Your task to perform on an android device: Open network settings Image 0: 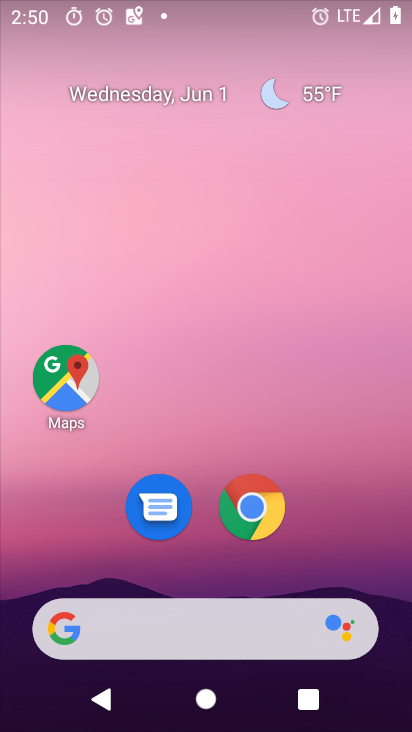
Step 0: drag from (341, 538) to (373, 28)
Your task to perform on an android device: Open network settings Image 1: 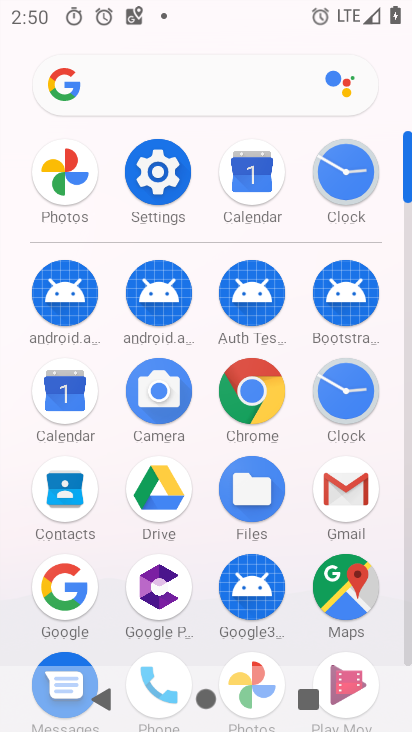
Step 1: click (156, 177)
Your task to perform on an android device: Open network settings Image 2: 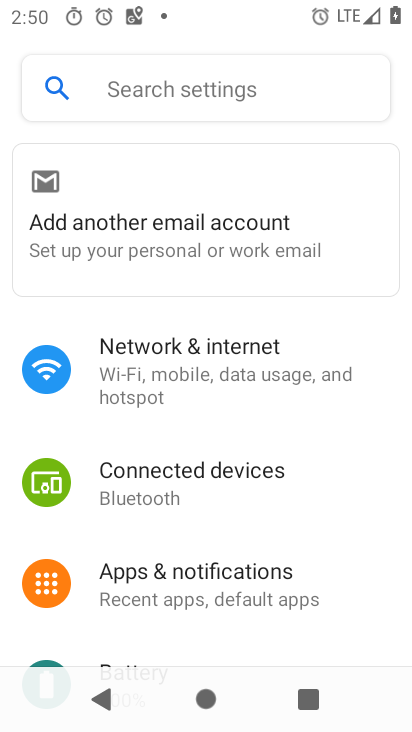
Step 2: click (159, 368)
Your task to perform on an android device: Open network settings Image 3: 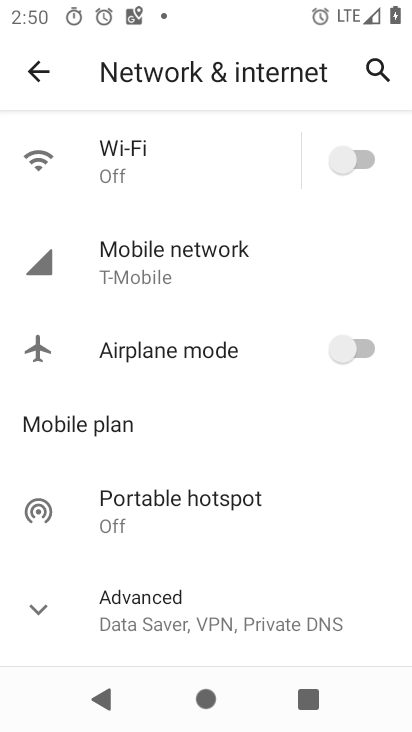
Step 3: click (129, 263)
Your task to perform on an android device: Open network settings Image 4: 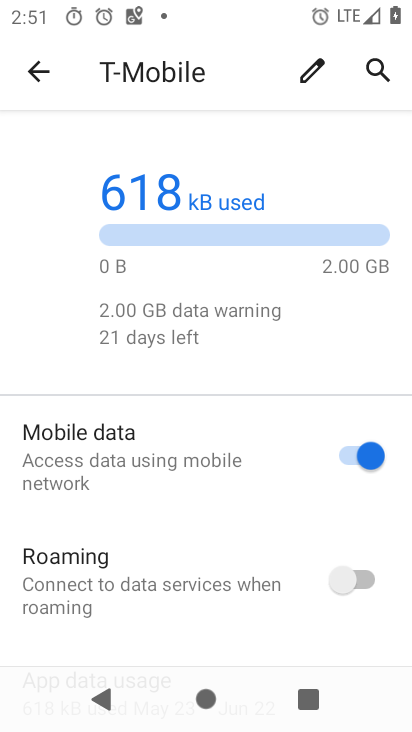
Step 4: drag from (185, 514) to (142, 88)
Your task to perform on an android device: Open network settings Image 5: 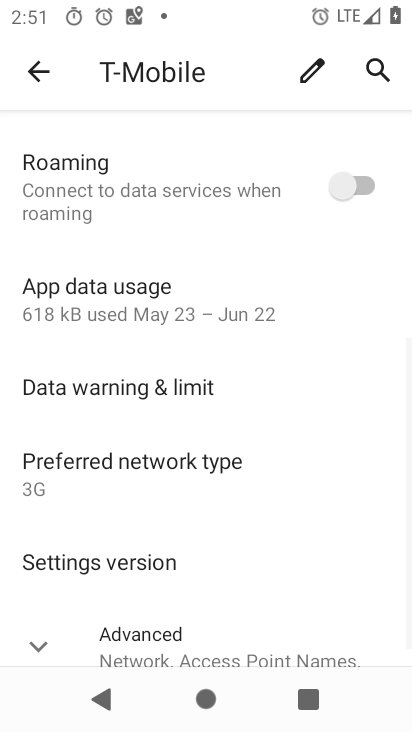
Step 5: drag from (125, 474) to (113, 116)
Your task to perform on an android device: Open network settings Image 6: 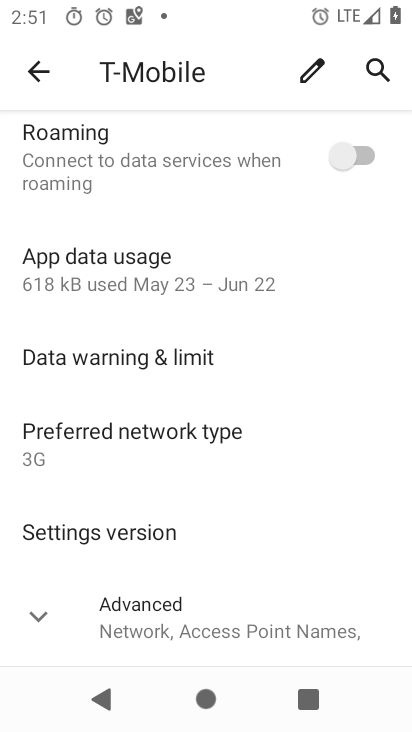
Step 6: click (35, 625)
Your task to perform on an android device: Open network settings Image 7: 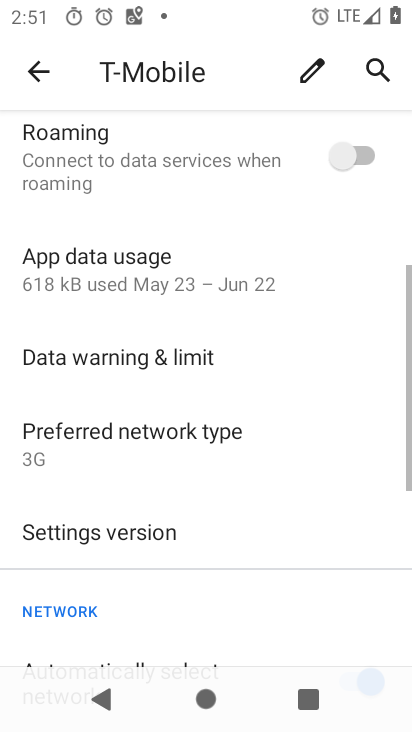
Step 7: task complete